Your task to perform on an android device: Open Maps and search for coffee Image 0: 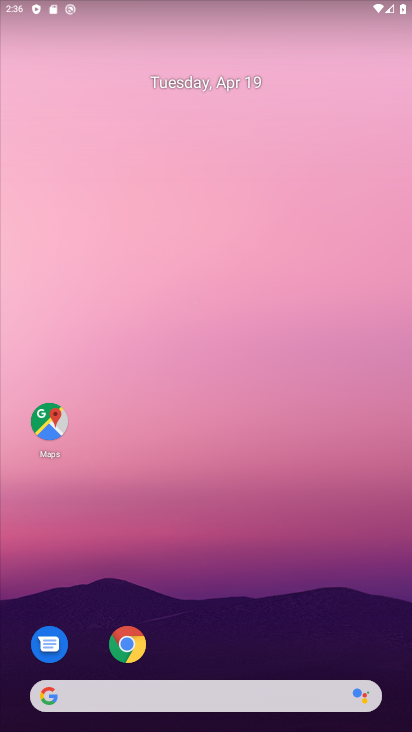
Step 0: drag from (250, 582) to (194, 176)
Your task to perform on an android device: Open Maps and search for coffee Image 1: 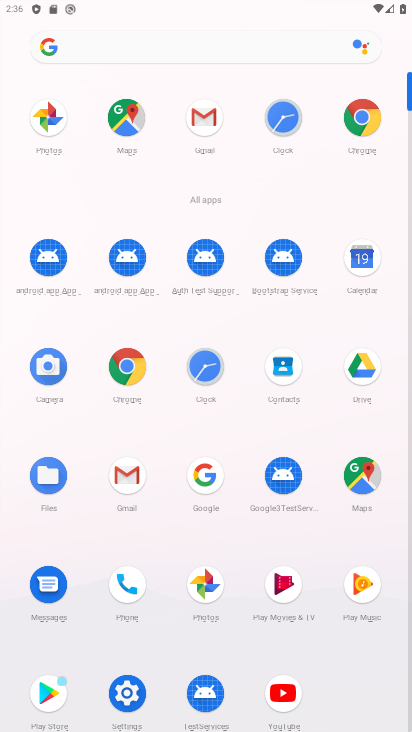
Step 1: click (122, 121)
Your task to perform on an android device: Open Maps and search for coffee Image 2: 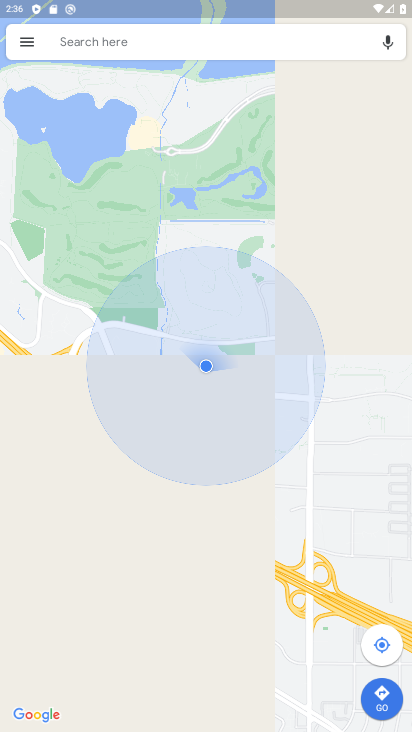
Step 2: click (181, 39)
Your task to perform on an android device: Open Maps and search for coffee Image 3: 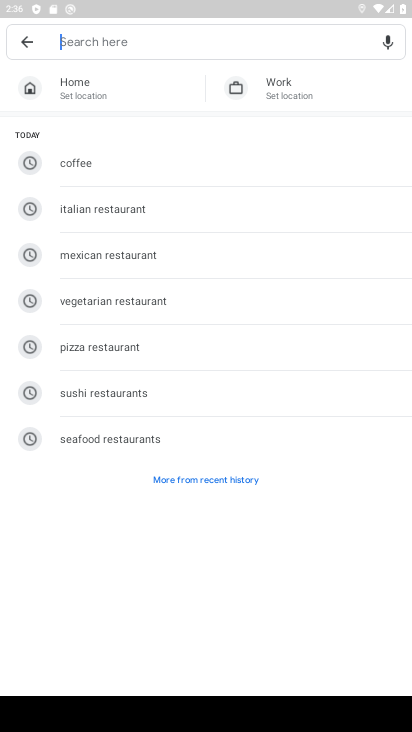
Step 3: click (77, 164)
Your task to perform on an android device: Open Maps and search for coffee Image 4: 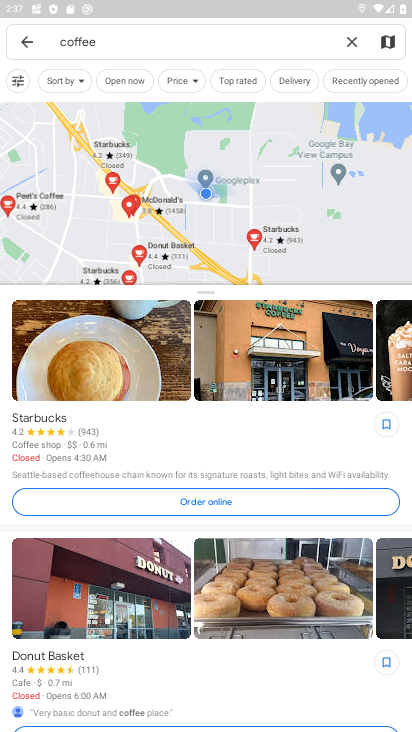
Step 4: task complete